Your task to perform on an android device: delete the emails in spam in the gmail app Image 0: 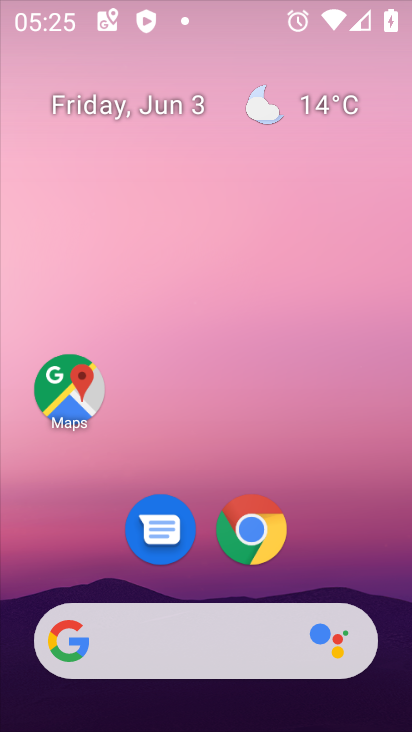
Step 0: press home button
Your task to perform on an android device: delete the emails in spam in the gmail app Image 1: 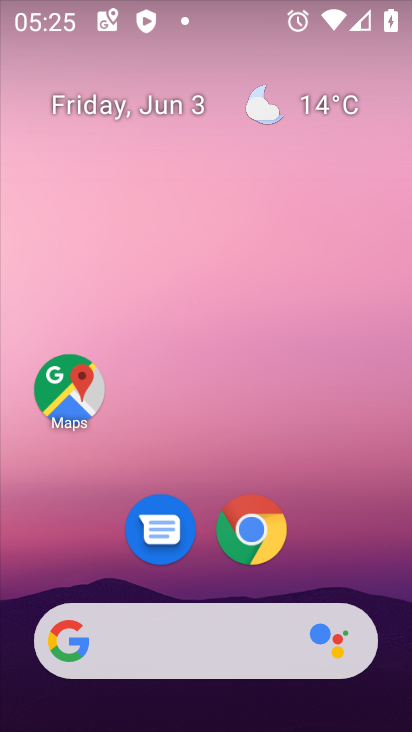
Step 1: drag from (201, 499) to (209, 69)
Your task to perform on an android device: delete the emails in spam in the gmail app Image 2: 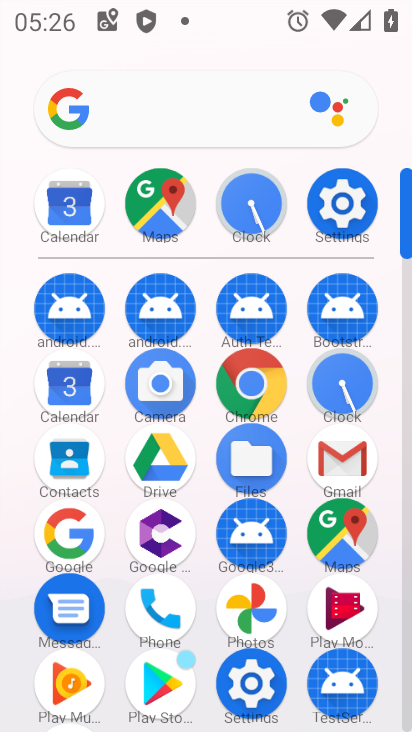
Step 2: click (334, 455)
Your task to perform on an android device: delete the emails in spam in the gmail app Image 3: 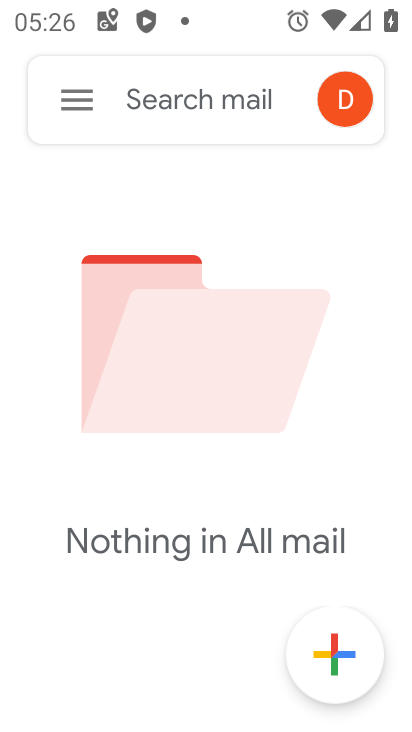
Step 3: click (78, 93)
Your task to perform on an android device: delete the emails in spam in the gmail app Image 4: 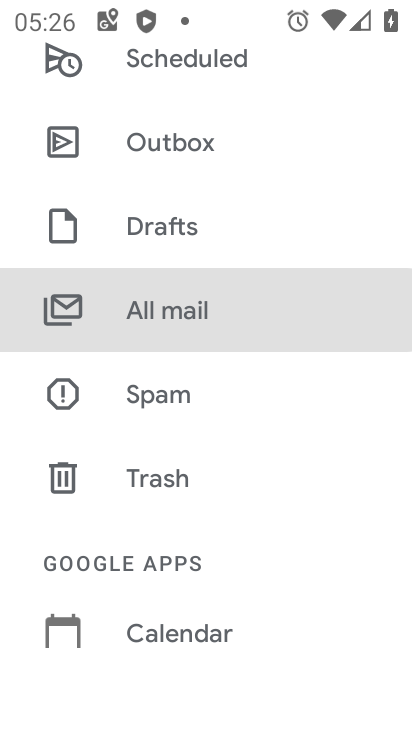
Step 4: drag from (136, 579) to (168, 40)
Your task to perform on an android device: delete the emails in spam in the gmail app Image 5: 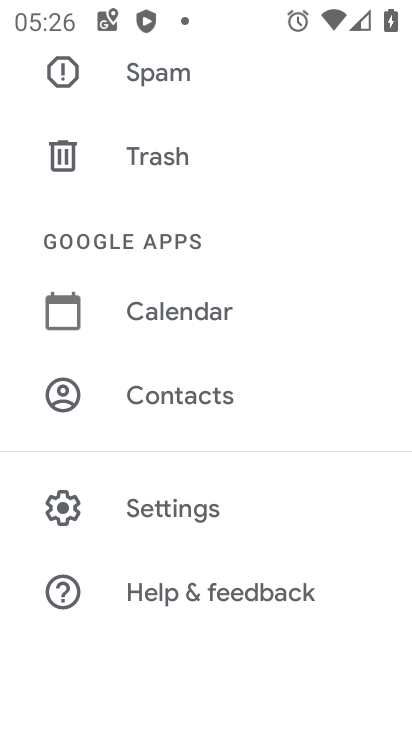
Step 5: click (151, 77)
Your task to perform on an android device: delete the emails in spam in the gmail app Image 6: 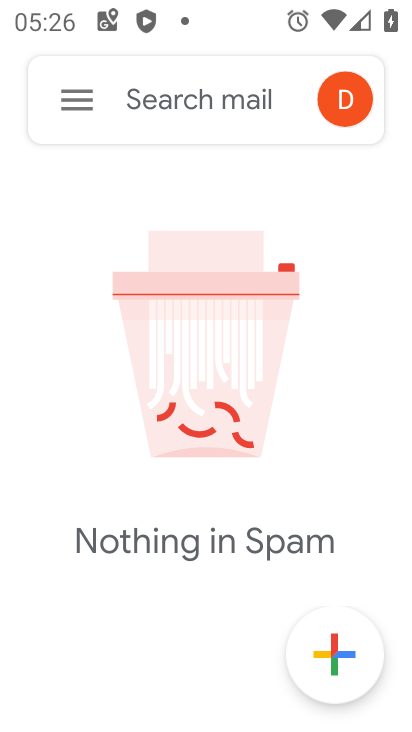
Step 6: task complete